Your task to perform on an android device: Open calendar and show me the fourth week of next month Image 0: 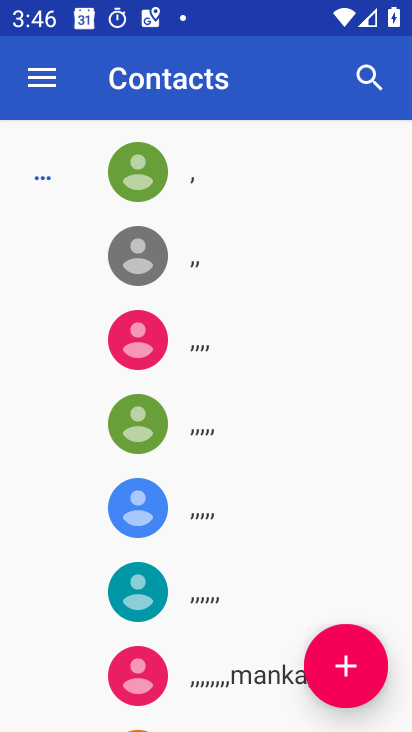
Step 0: press home button
Your task to perform on an android device: Open calendar and show me the fourth week of next month Image 1: 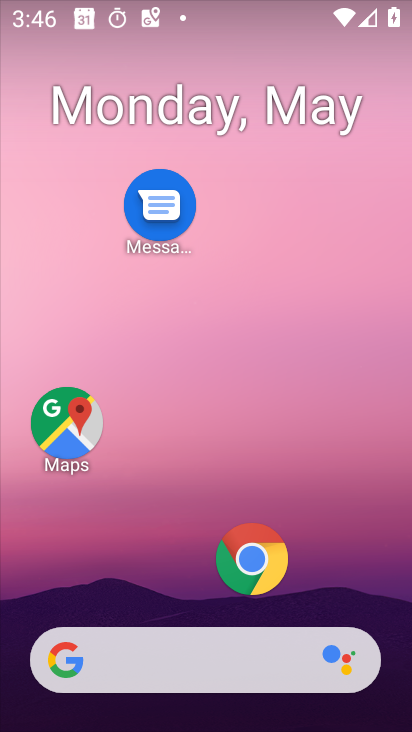
Step 1: drag from (194, 586) to (207, 193)
Your task to perform on an android device: Open calendar and show me the fourth week of next month Image 2: 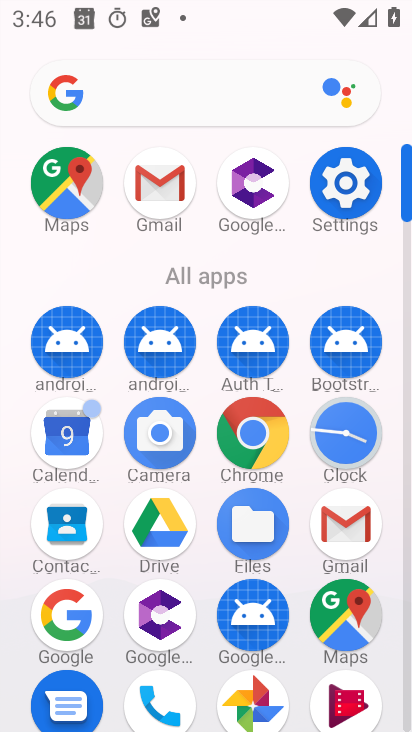
Step 2: click (69, 442)
Your task to perform on an android device: Open calendar and show me the fourth week of next month Image 3: 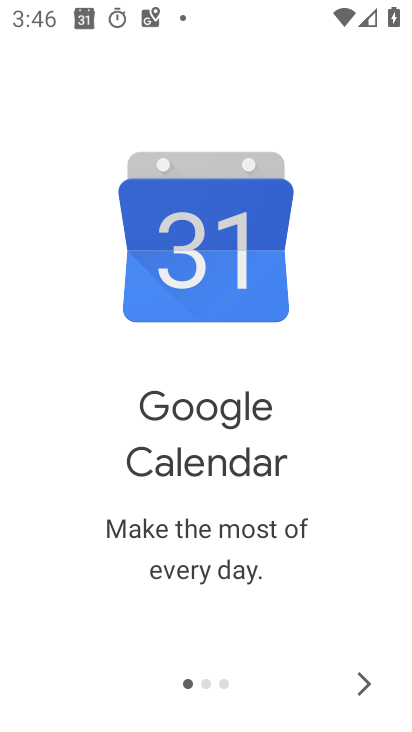
Step 3: click (359, 688)
Your task to perform on an android device: Open calendar and show me the fourth week of next month Image 4: 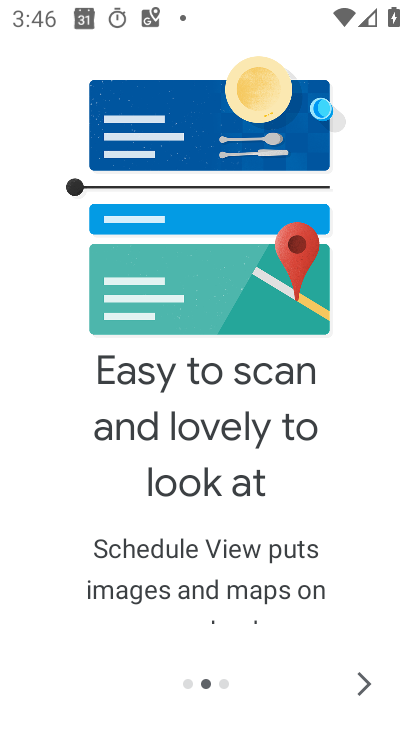
Step 4: click (358, 681)
Your task to perform on an android device: Open calendar and show me the fourth week of next month Image 5: 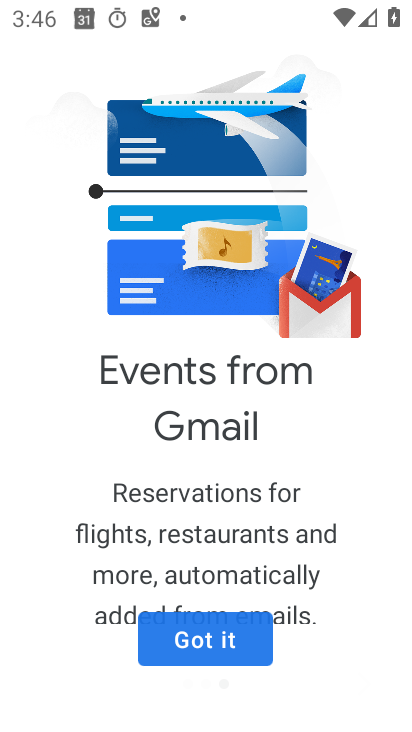
Step 5: click (358, 681)
Your task to perform on an android device: Open calendar and show me the fourth week of next month Image 6: 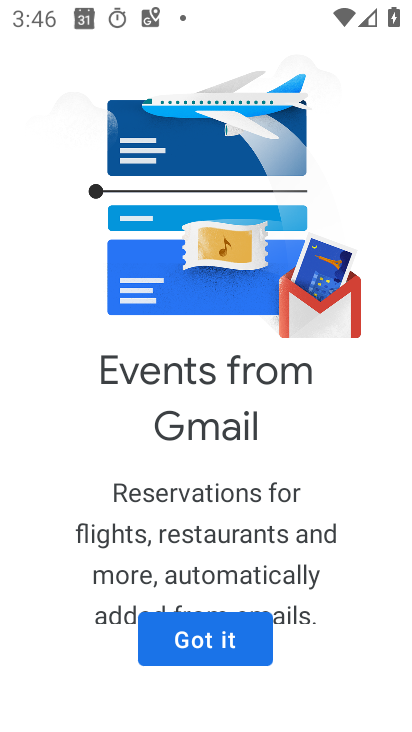
Step 6: click (199, 645)
Your task to perform on an android device: Open calendar and show me the fourth week of next month Image 7: 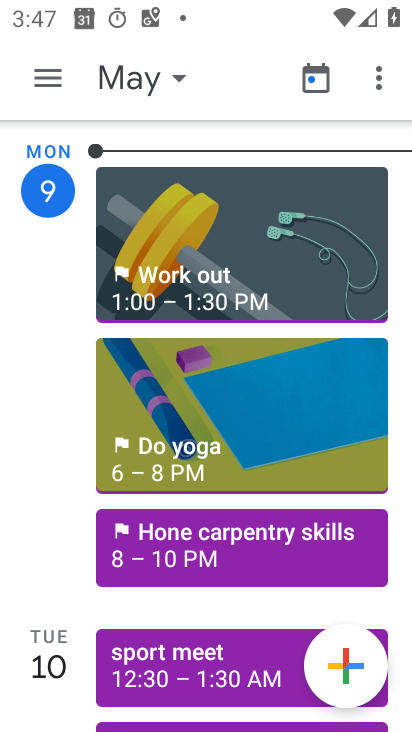
Step 7: click (170, 73)
Your task to perform on an android device: Open calendar and show me the fourth week of next month Image 8: 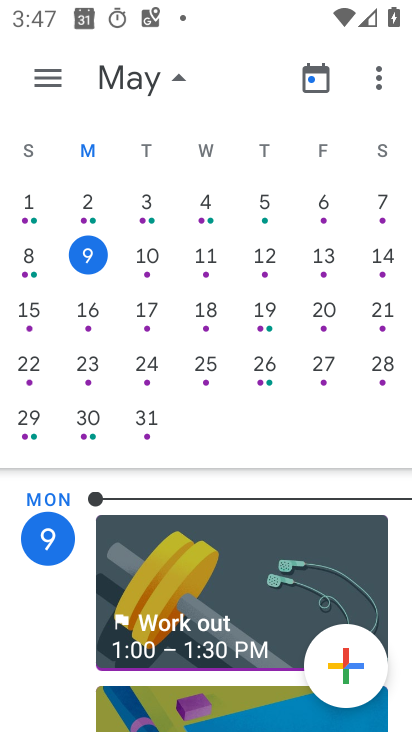
Step 8: drag from (400, 283) to (48, 231)
Your task to perform on an android device: Open calendar and show me the fourth week of next month Image 9: 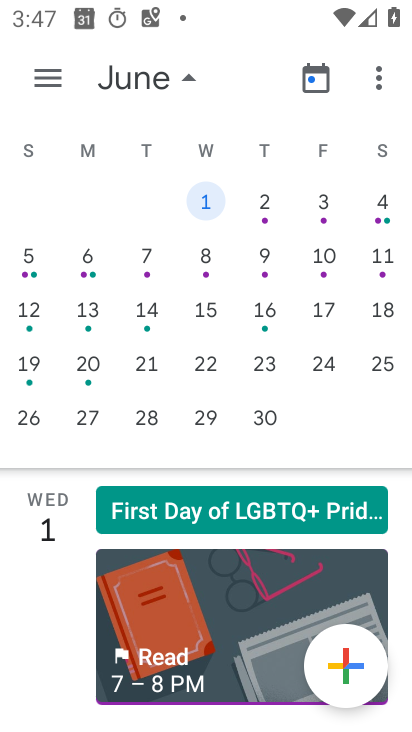
Step 9: click (264, 373)
Your task to perform on an android device: Open calendar and show me the fourth week of next month Image 10: 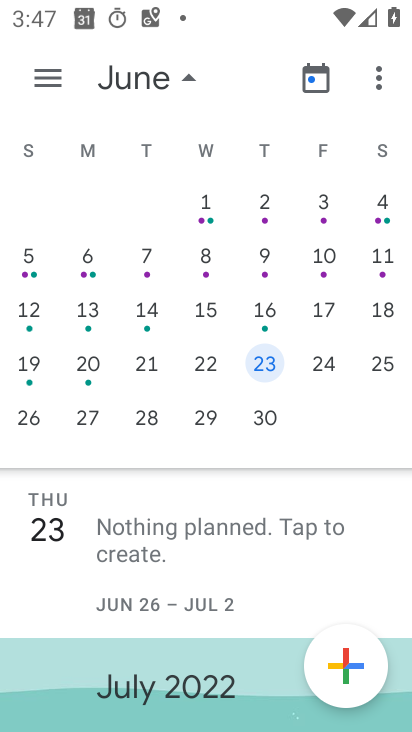
Step 10: click (197, 359)
Your task to perform on an android device: Open calendar and show me the fourth week of next month Image 11: 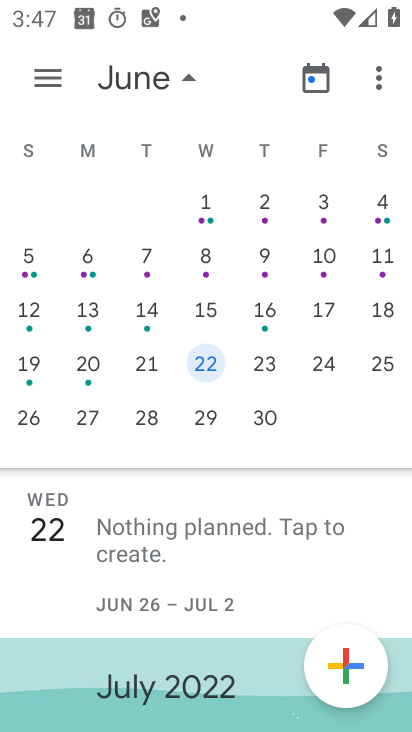
Step 11: click (51, 78)
Your task to perform on an android device: Open calendar and show me the fourth week of next month Image 12: 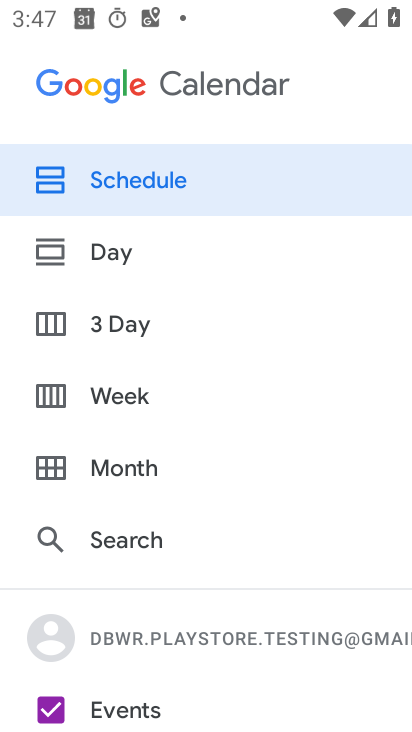
Step 12: click (97, 394)
Your task to perform on an android device: Open calendar and show me the fourth week of next month Image 13: 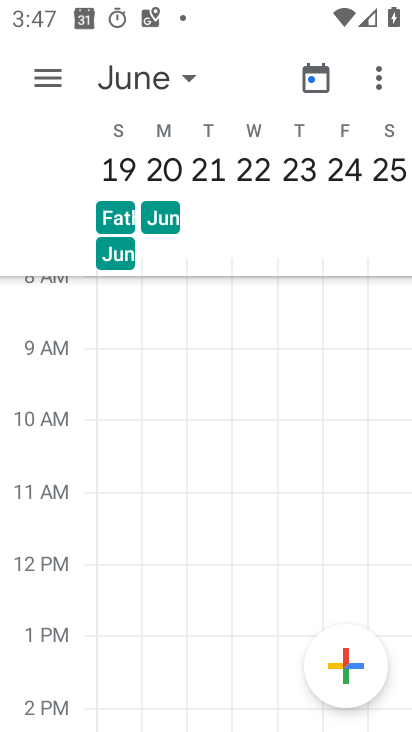
Step 13: task complete